Your task to perform on an android device: What's the weather going to be this weekend? Image 0: 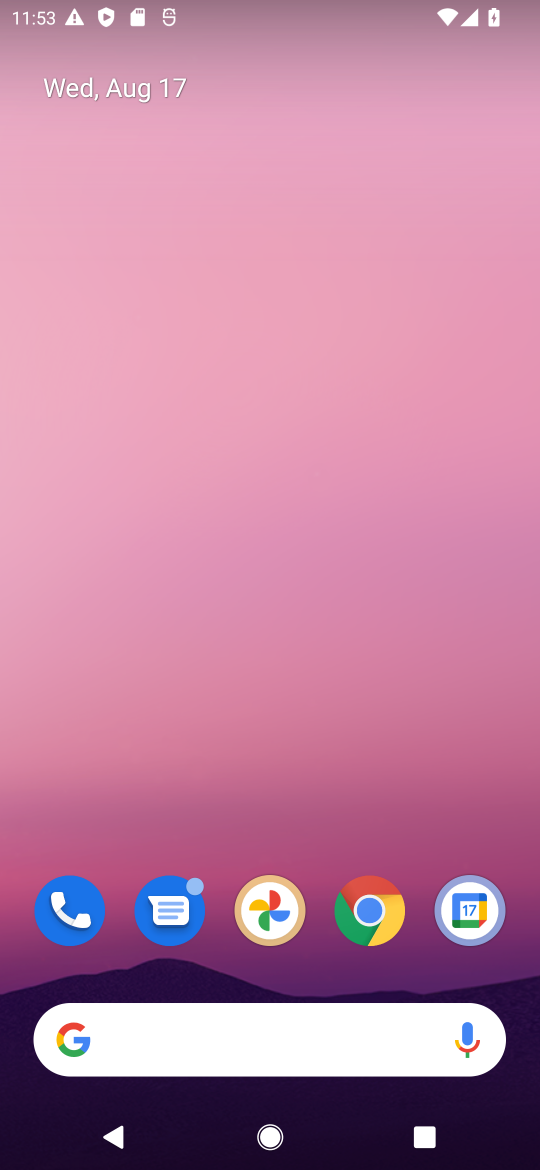
Step 0: click (192, 1039)
Your task to perform on an android device: What's the weather going to be this weekend? Image 1: 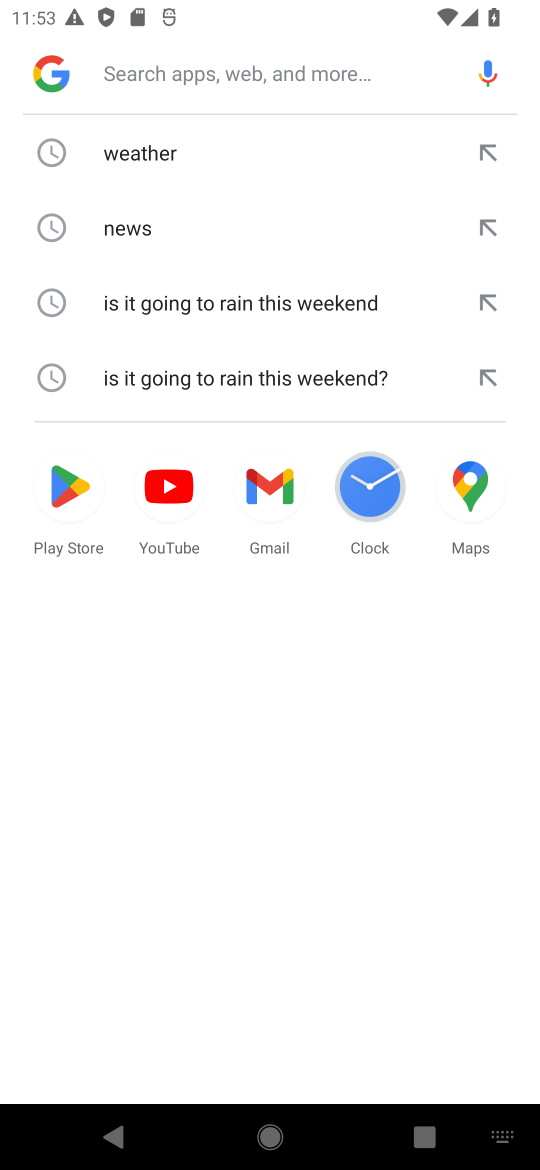
Step 1: click (169, 138)
Your task to perform on an android device: What's the weather going to be this weekend? Image 2: 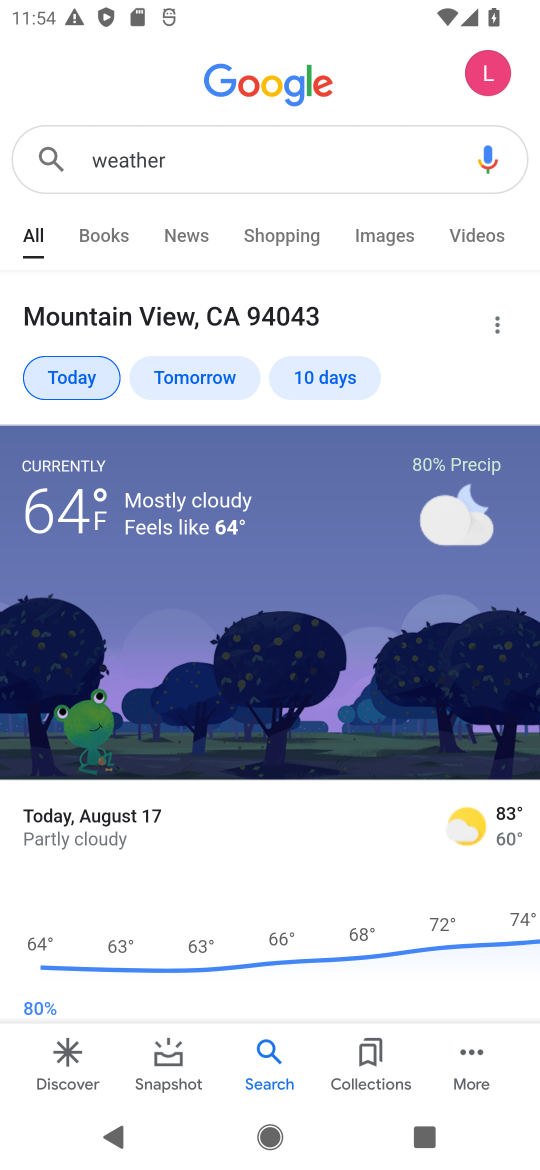
Step 2: click (306, 362)
Your task to perform on an android device: What's the weather going to be this weekend? Image 3: 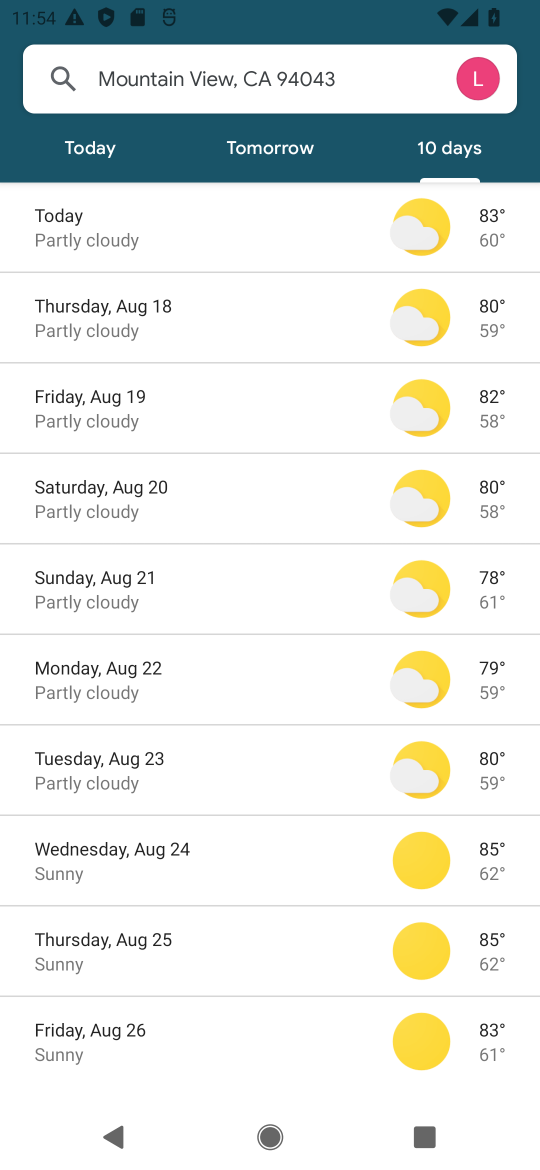
Step 3: task complete